Your task to perform on an android device: turn on the 12-hour format for clock Image 0: 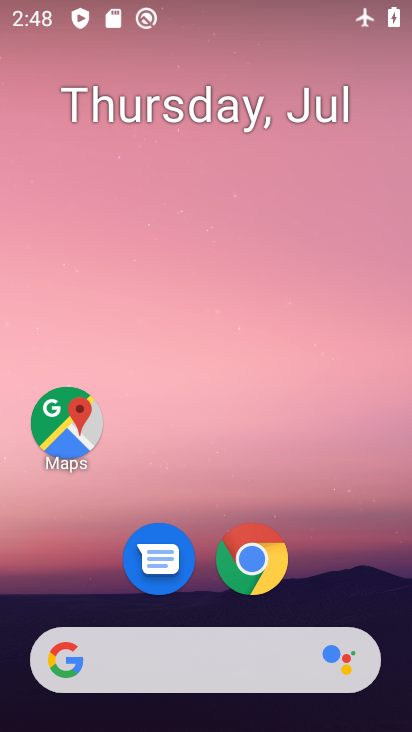
Step 0: drag from (264, 672) to (286, 173)
Your task to perform on an android device: turn on the 12-hour format for clock Image 1: 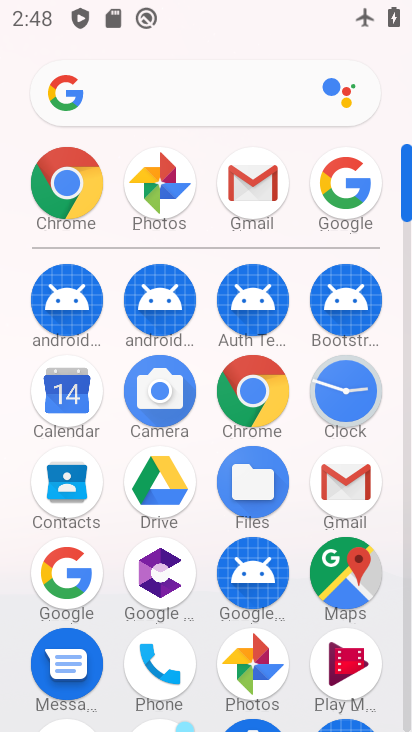
Step 1: click (362, 416)
Your task to perform on an android device: turn on the 12-hour format for clock Image 2: 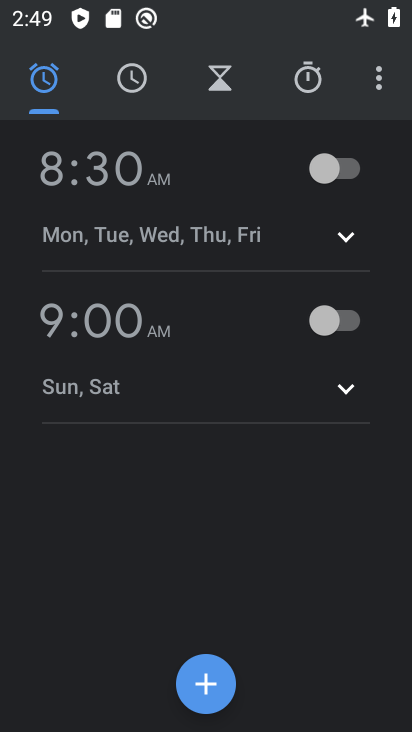
Step 2: press home button
Your task to perform on an android device: turn on the 12-hour format for clock Image 3: 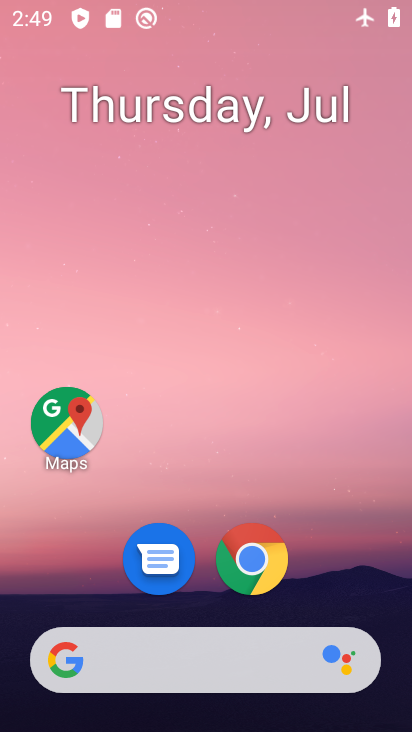
Step 3: drag from (233, 650) to (202, 58)
Your task to perform on an android device: turn on the 12-hour format for clock Image 4: 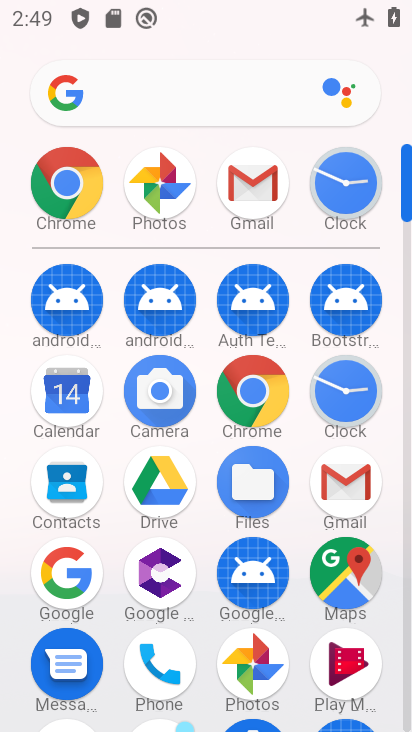
Step 4: click (340, 407)
Your task to perform on an android device: turn on the 12-hour format for clock Image 5: 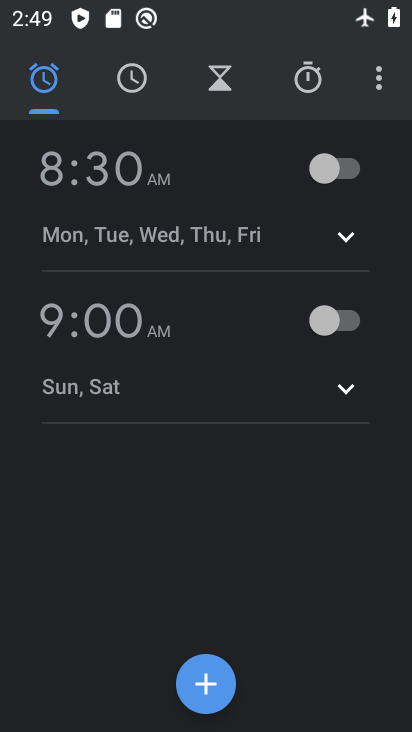
Step 5: click (376, 84)
Your task to perform on an android device: turn on the 12-hour format for clock Image 6: 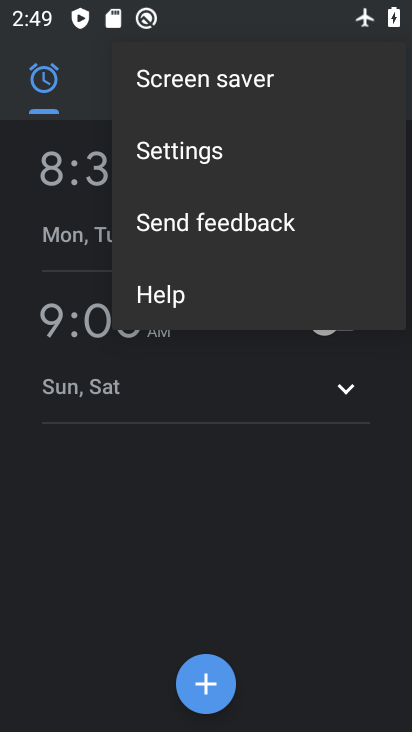
Step 6: click (196, 152)
Your task to perform on an android device: turn on the 12-hour format for clock Image 7: 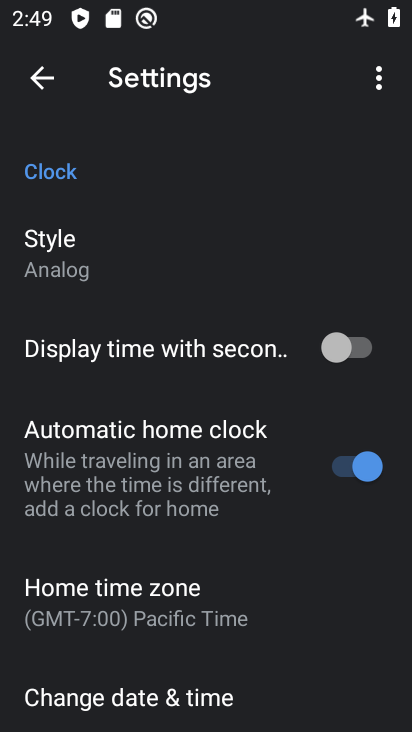
Step 7: drag from (165, 630) to (111, 262)
Your task to perform on an android device: turn on the 12-hour format for clock Image 8: 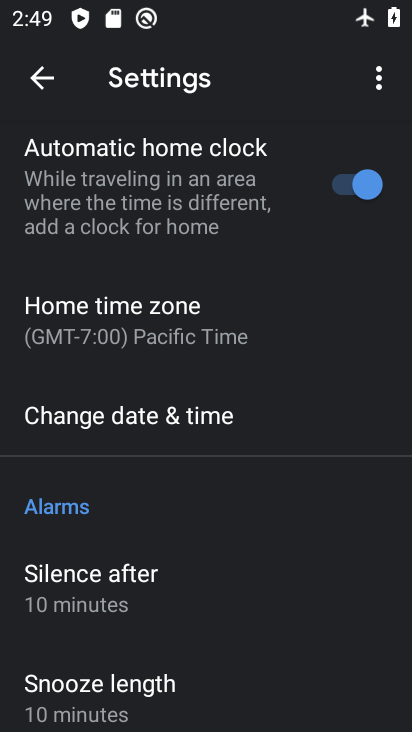
Step 8: click (145, 426)
Your task to perform on an android device: turn on the 12-hour format for clock Image 9: 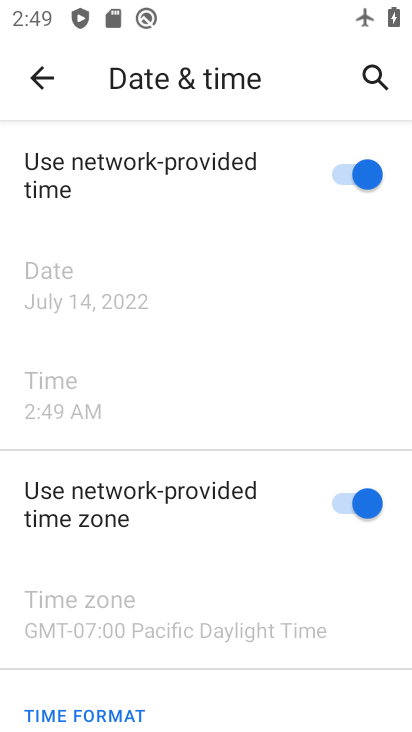
Step 9: task complete